Your task to perform on an android device: View the shopping cart on ebay.com. Add energizer triple a to the cart on ebay.com Image 0: 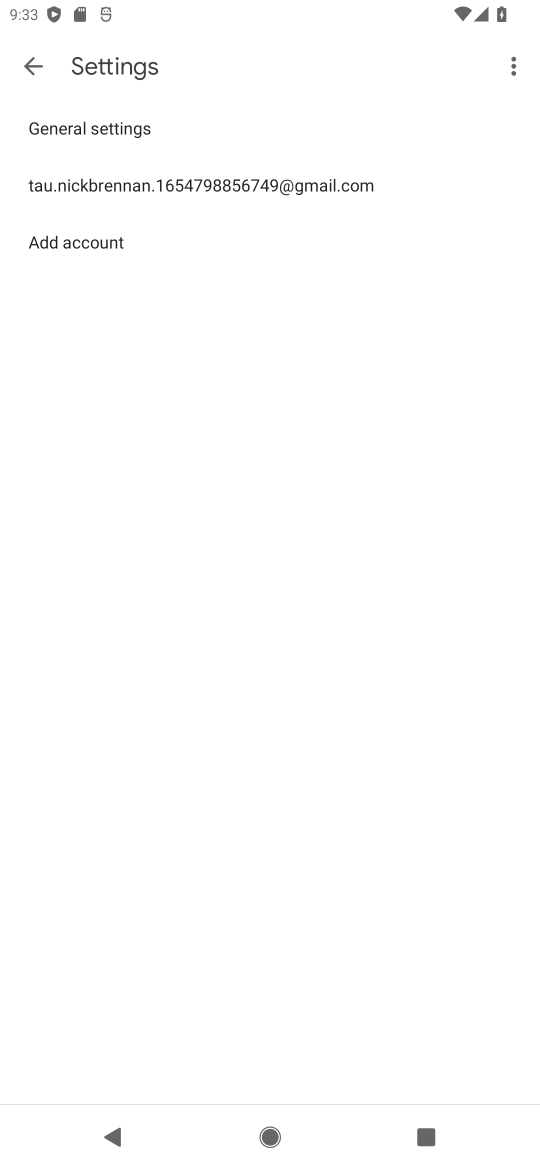
Step 0: press home button
Your task to perform on an android device: View the shopping cart on ebay.com. Add energizer triple a to the cart on ebay.com Image 1: 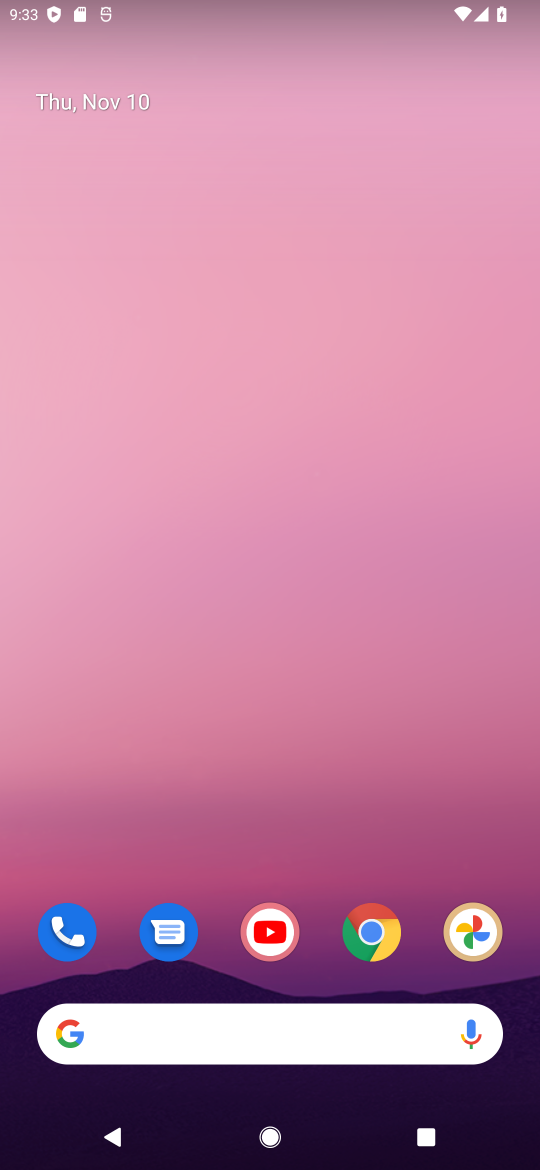
Step 1: click (366, 930)
Your task to perform on an android device: View the shopping cart on ebay.com. Add energizer triple a to the cart on ebay.com Image 2: 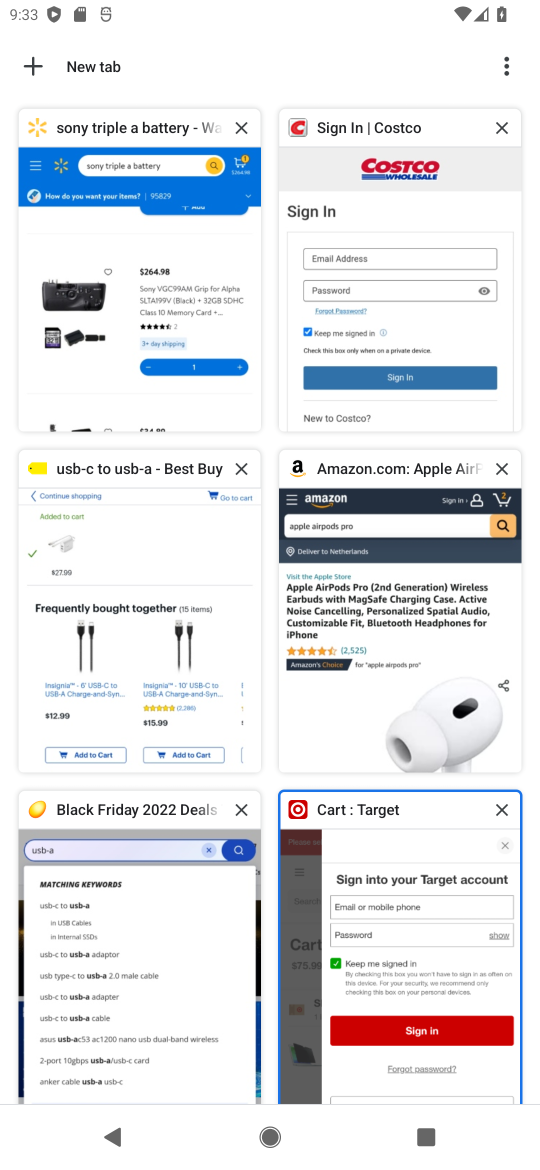
Step 2: click (31, 48)
Your task to perform on an android device: View the shopping cart on ebay.com. Add energizer triple a to the cart on ebay.com Image 3: 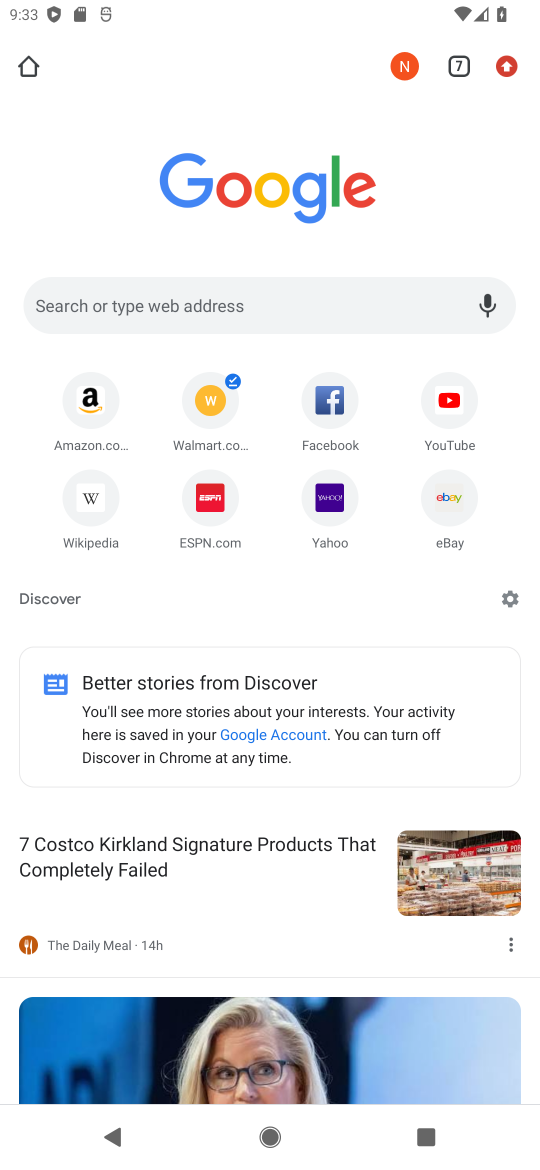
Step 3: click (190, 317)
Your task to perform on an android device: View the shopping cart on ebay.com. Add energizer triple a to the cart on ebay.com Image 4: 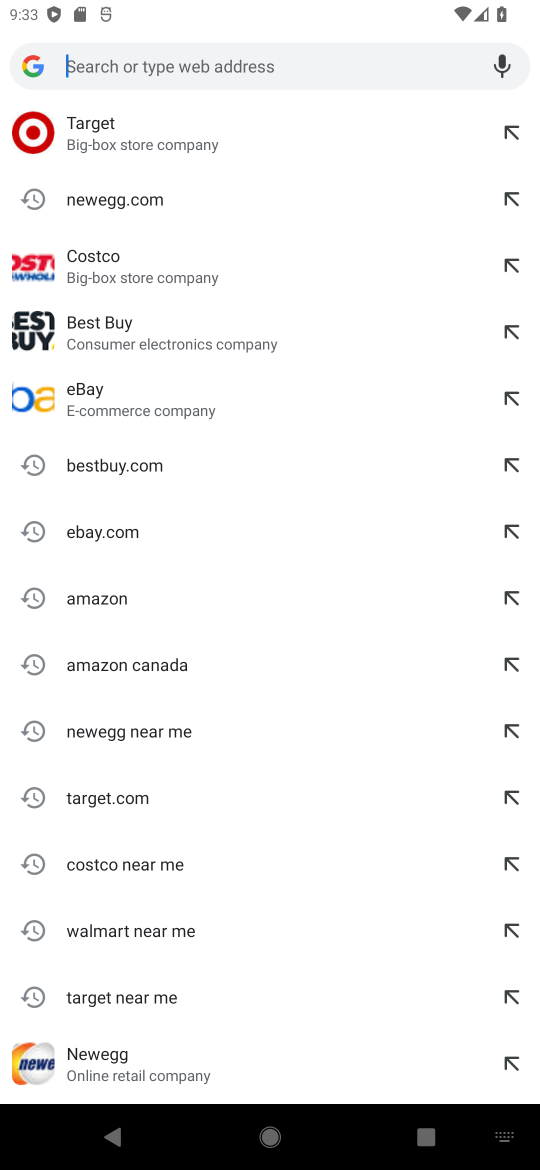
Step 4: click (112, 528)
Your task to perform on an android device: View the shopping cart on ebay.com. Add energizer triple a to the cart on ebay.com Image 5: 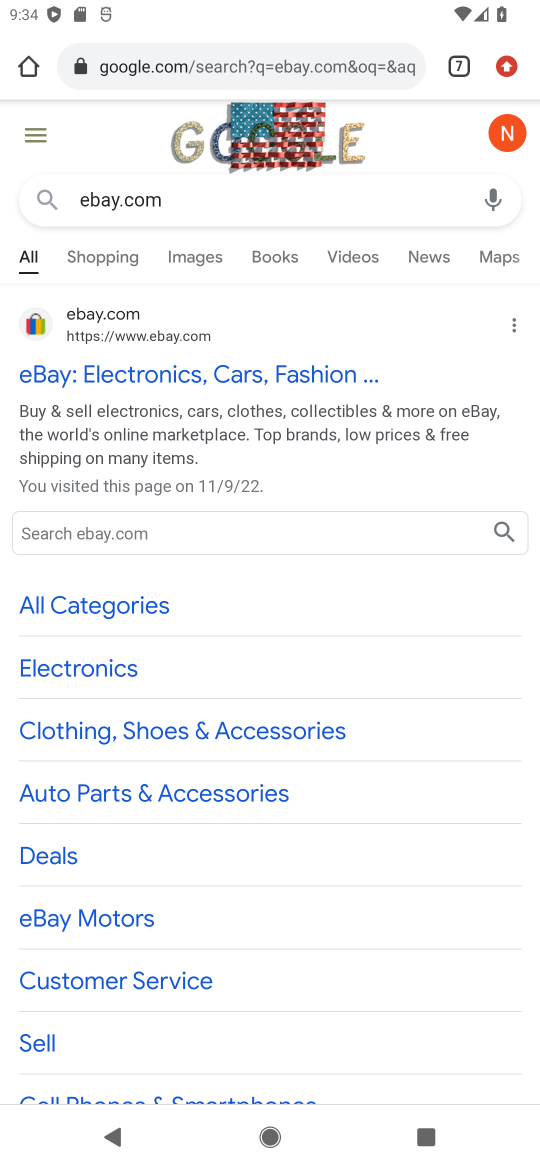
Step 5: click (89, 534)
Your task to perform on an android device: View the shopping cart on ebay.com. Add energizer triple a to the cart on ebay.com Image 6: 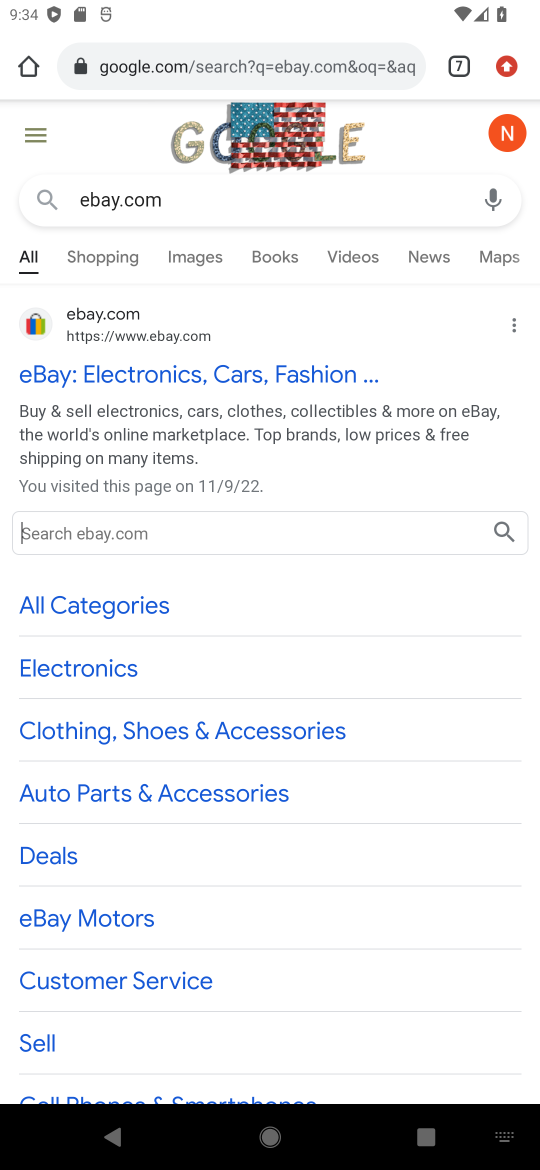
Step 6: type "energizer triple a"
Your task to perform on an android device: View the shopping cart on ebay.com. Add energizer triple a to the cart on ebay.com Image 7: 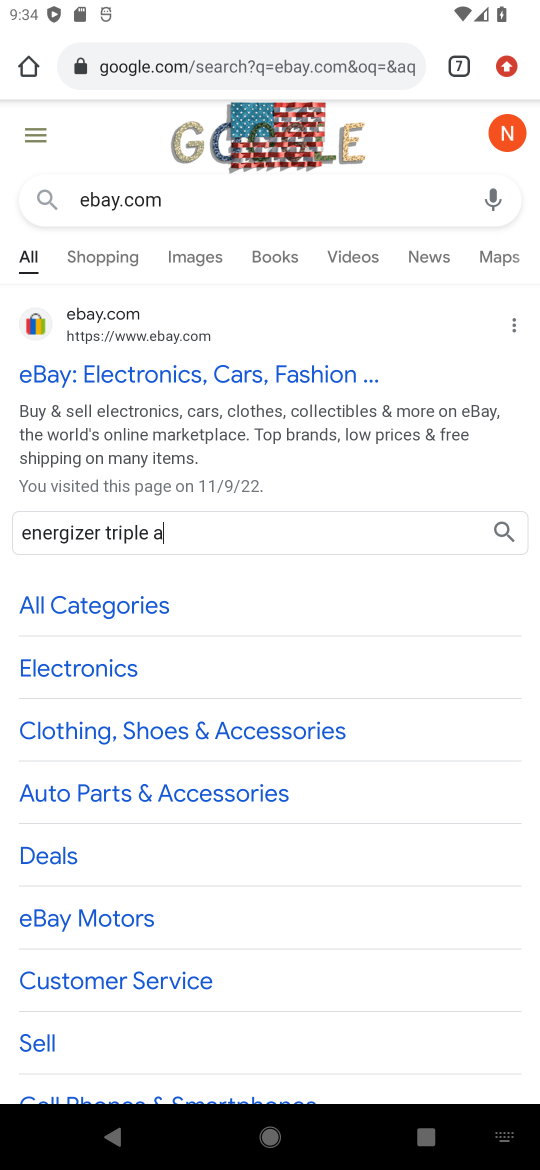
Step 7: type " battery"
Your task to perform on an android device: View the shopping cart on ebay.com. Add energizer triple a to the cart on ebay.com Image 8: 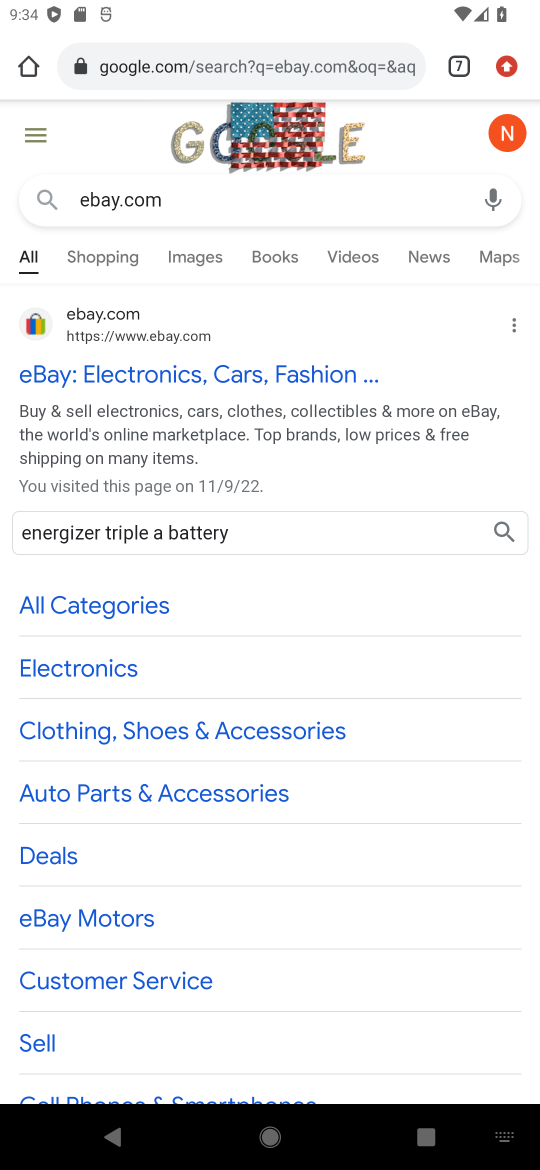
Step 8: click (503, 525)
Your task to perform on an android device: View the shopping cart on ebay.com. Add energizer triple a to the cart on ebay.com Image 9: 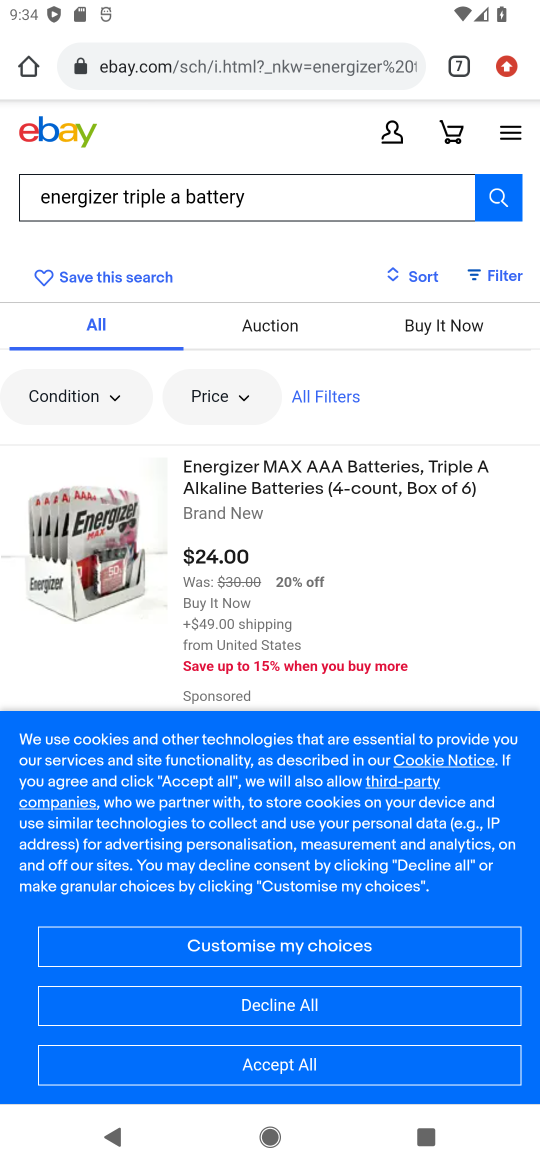
Step 9: click (338, 479)
Your task to perform on an android device: View the shopping cart on ebay.com. Add energizer triple a to the cart on ebay.com Image 10: 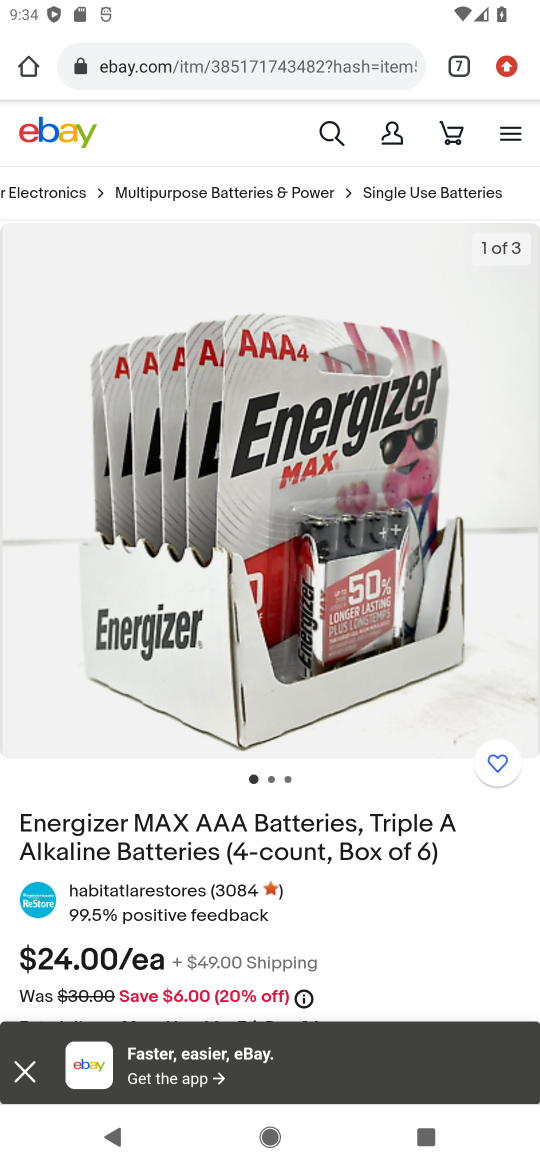
Step 10: drag from (370, 960) to (344, 475)
Your task to perform on an android device: View the shopping cart on ebay.com. Add energizer triple a to the cart on ebay.com Image 11: 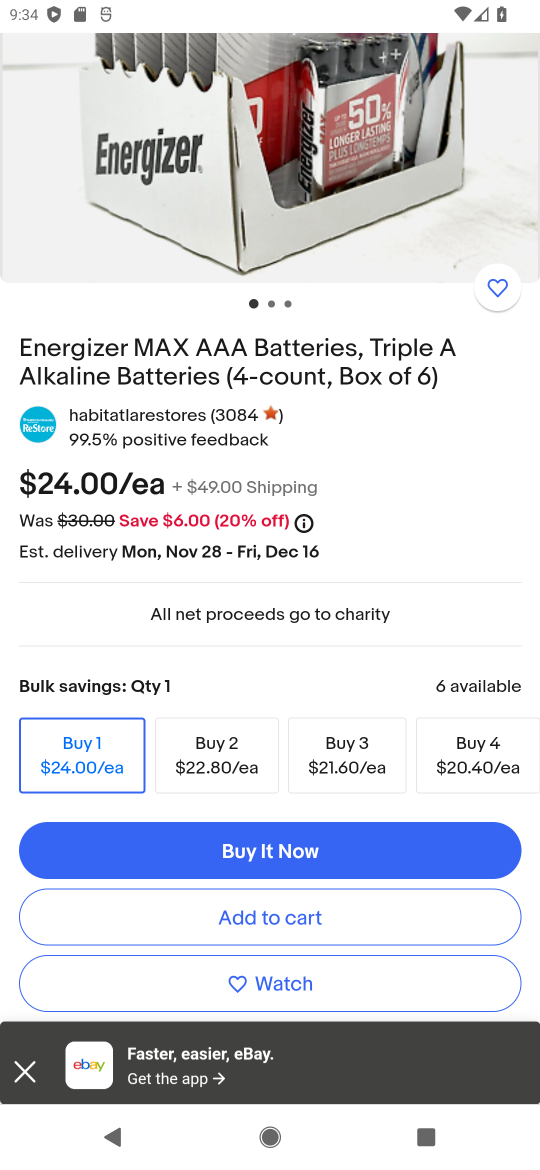
Step 11: click (332, 908)
Your task to perform on an android device: View the shopping cart on ebay.com. Add energizer triple a to the cart on ebay.com Image 12: 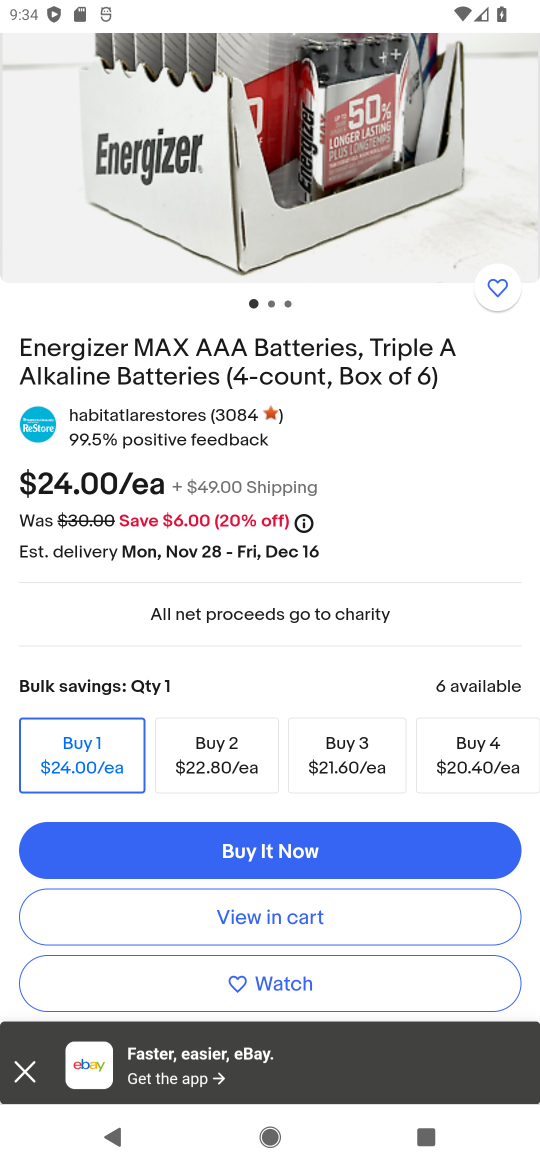
Step 12: click (305, 913)
Your task to perform on an android device: View the shopping cart on ebay.com. Add energizer triple a to the cart on ebay.com Image 13: 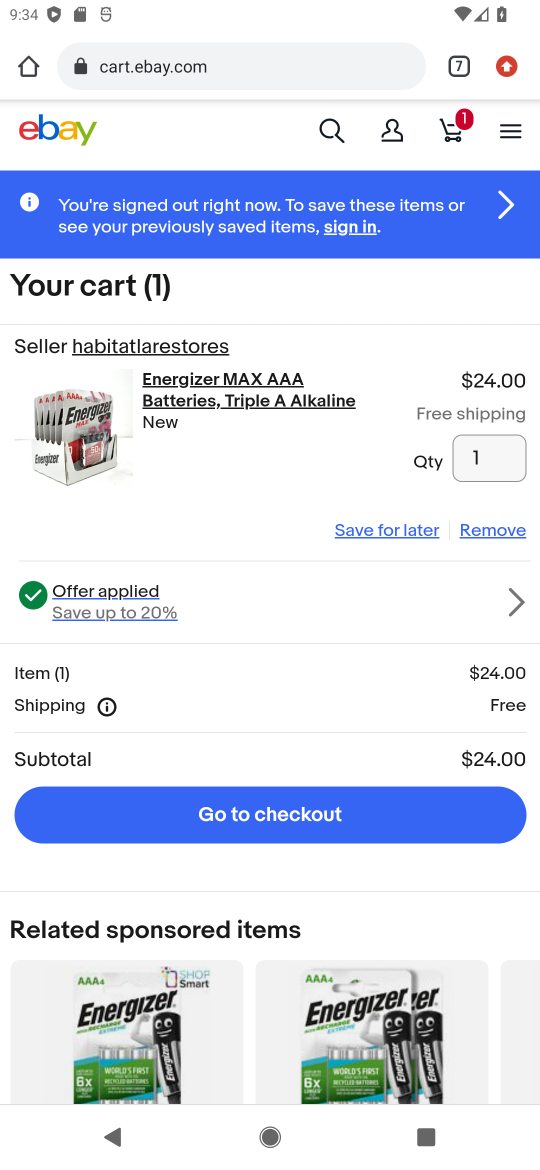
Step 13: task complete